Your task to perform on an android device: Open Maps and search for coffee Image 0: 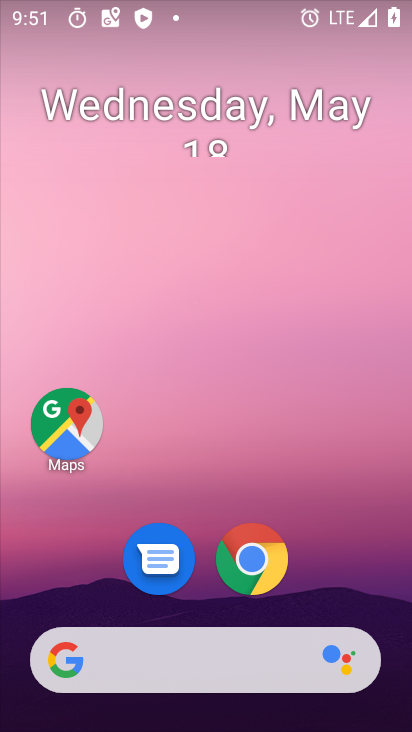
Step 0: drag from (377, 567) to (291, 47)
Your task to perform on an android device: Open Maps and search for coffee Image 1: 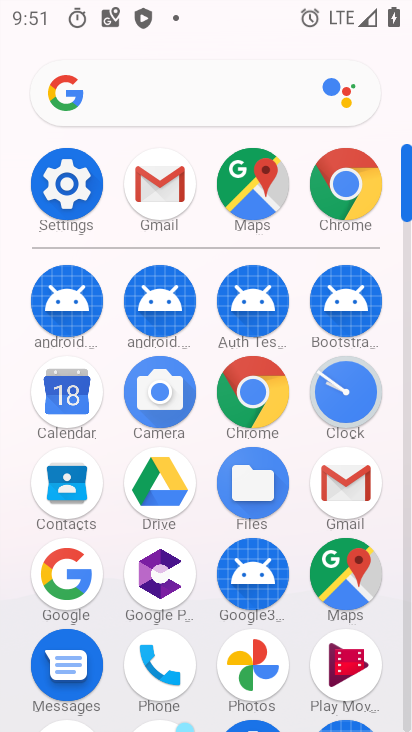
Step 1: drag from (17, 594) to (16, 277)
Your task to perform on an android device: Open Maps and search for coffee Image 2: 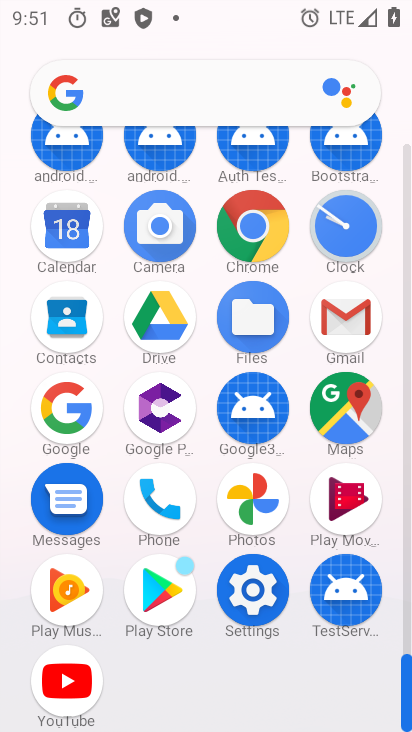
Step 2: click (351, 403)
Your task to perform on an android device: Open Maps and search for coffee Image 3: 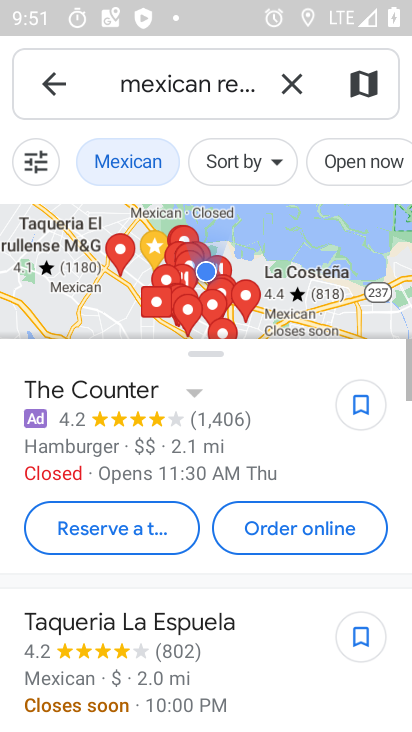
Step 3: click (292, 85)
Your task to perform on an android device: Open Maps and search for coffee Image 4: 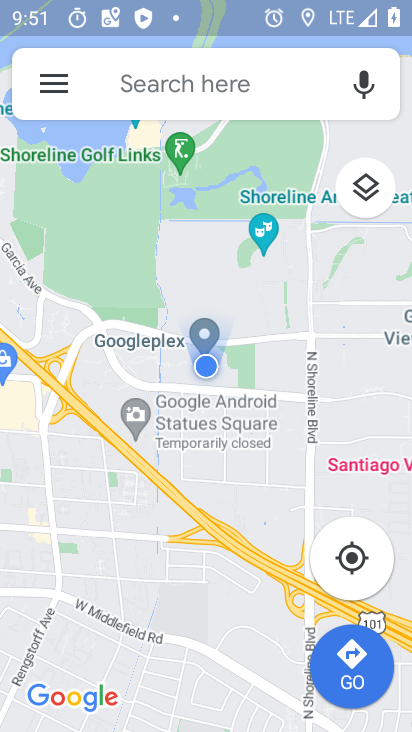
Step 4: click (270, 91)
Your task to perform on an android device: Open Maps and search for coffee Image 5: 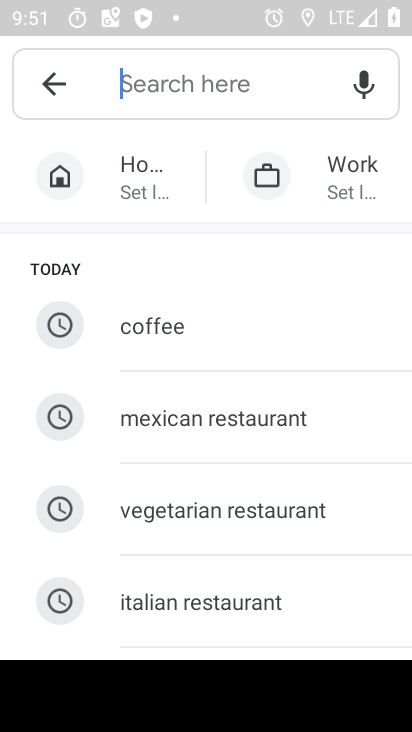
Step 5: click (193, 340)
Your task to perform on an android device: Open Maps and search for coffee Image 6: 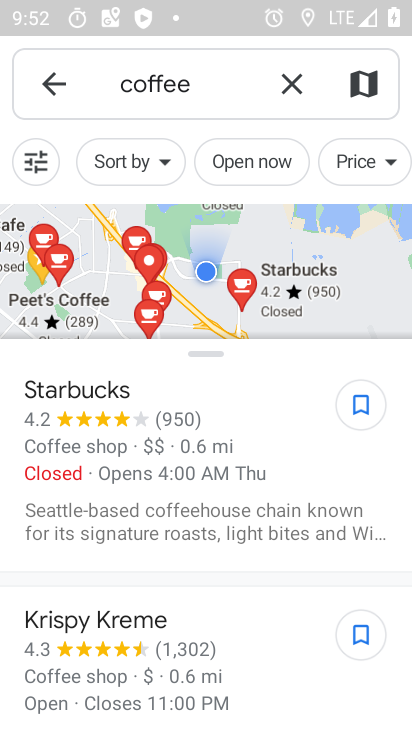
Step 6: task complete